Your task to perform on an android device: What's the weather going to be tomorrow? Image 0: 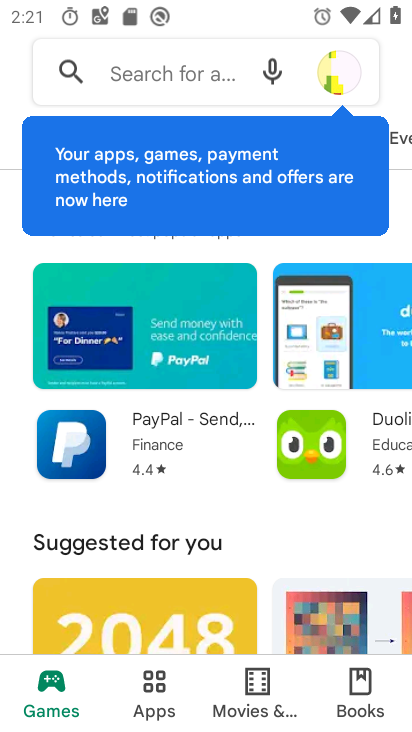
Step 0: press home button
Your task to perform on an android device: What's the weather going to be tomorrow? Image 1: 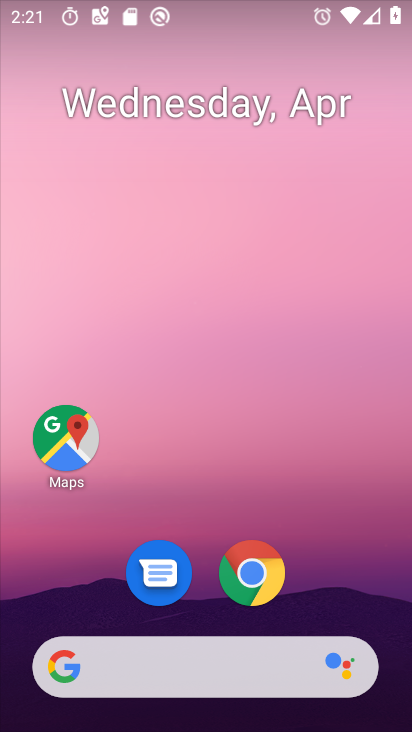
Step 1: click (204, 656)
Your task to perform on an android device: What's the weather going to be tomorrow? Image 2: 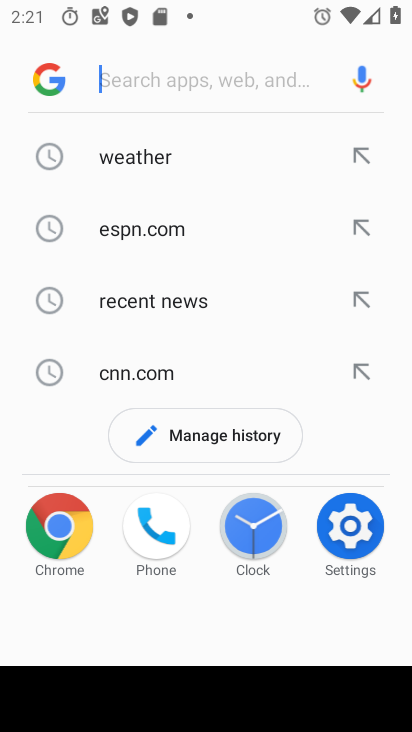
Step 2: click (152, 159)
Your task to perform on an android device: What's the weather going to be tomorrow? Image 3: 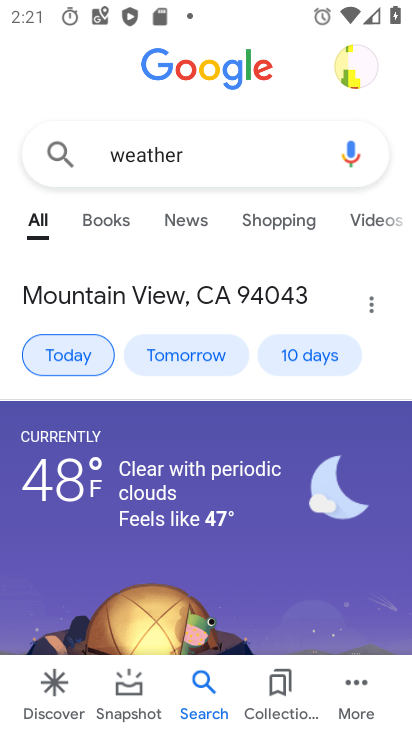
Step 3: click (197, 361)
Your task to perform on an android device: What's the weather going to be tomorrow? Image 4: 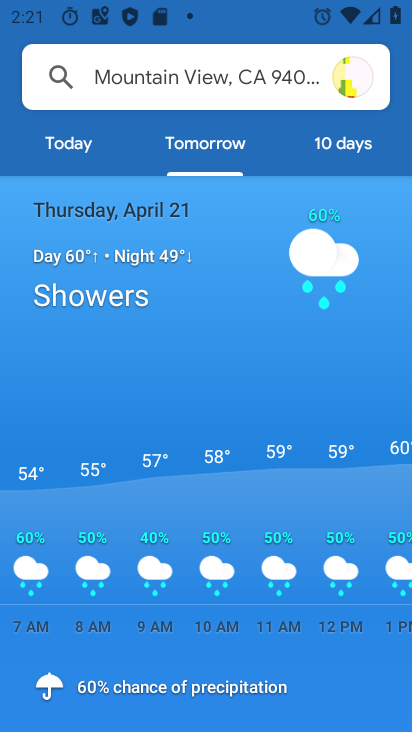
Step 4: task complete